Your task to perform on an android device: Go to calendar. Show me events next week Image 0: 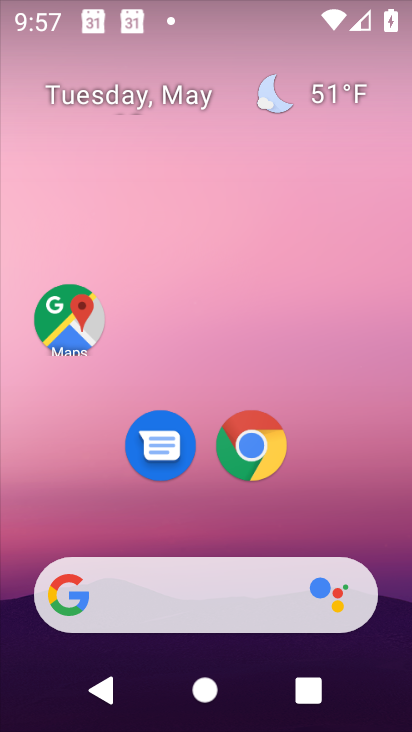
Step 0: drag from (199, 600) to (170, 59)
Your task to perform on an android device: Go to calendar. Show me events next week Image 1: 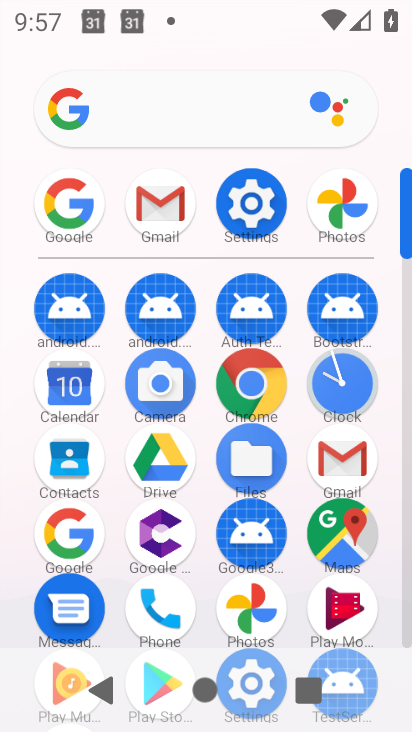
Step 1: click (72, 394)
Your task to perform on an android device: Go to calendar. Show me events next week Image 2: 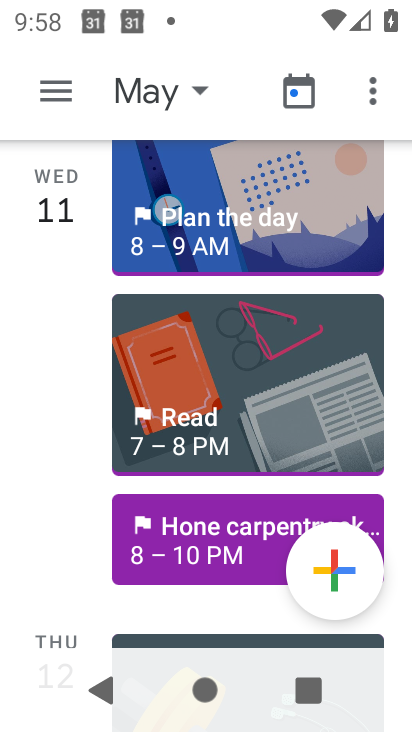
Step 2: click (62, 92)
Your task to perform on an android device: Go to calendar. Show me events next week Image 3: 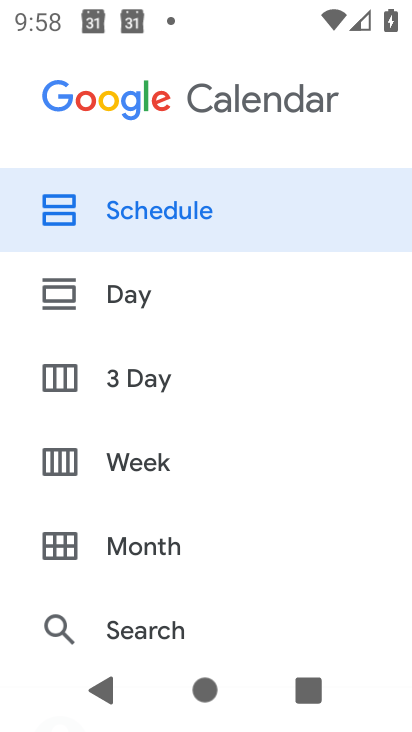
Step 3: click (138, 463)
Your task to perform on an android device: Go to calendar. Show me events next week Image 4: 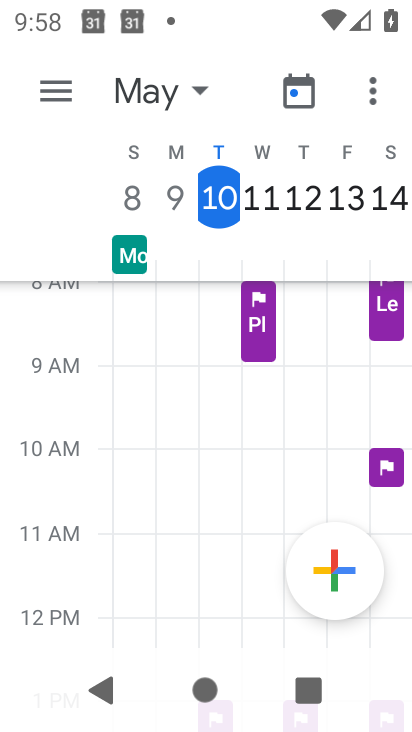
Step 4: task complete